Your task to perform on an android device: Go to battery settings Image 0: 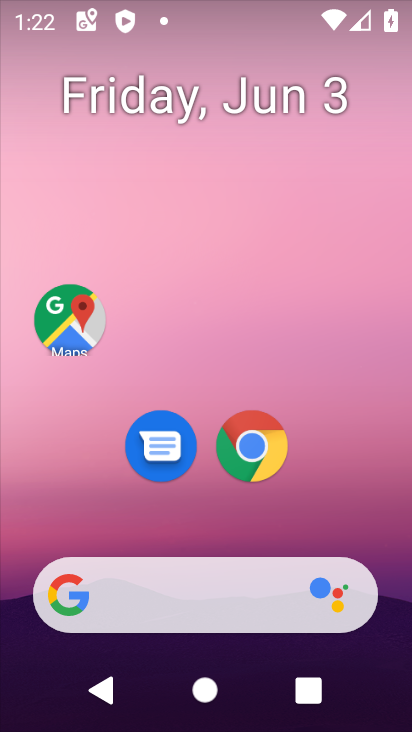
Step 0: drag from (198, 458) to (409, 40)
Your task to perform on an android device: Go to battery settings Image 1: 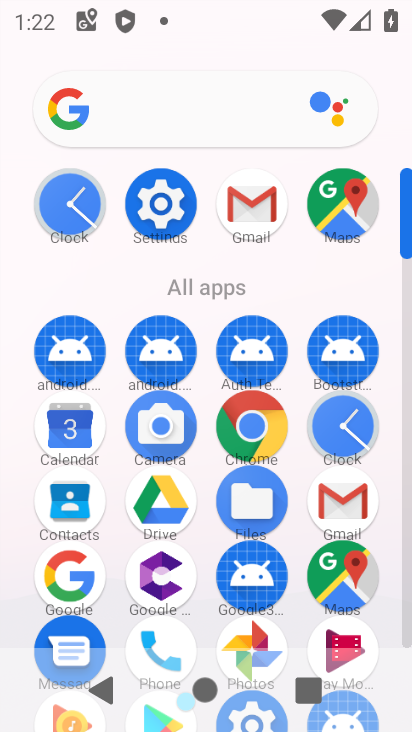
Step 1: click (189, 180)
Your task to perform on an android device: Go to battery settings Image 2: 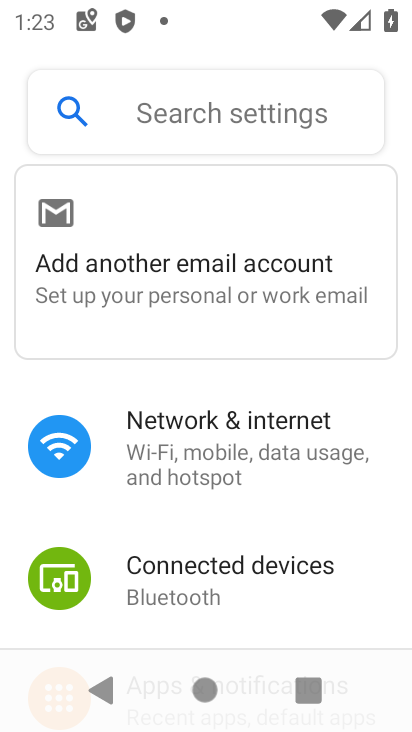
Step 2: drag from (188, 590) to (148, 281)
Your task to perform on an android device: Go to battery settings Image 3: 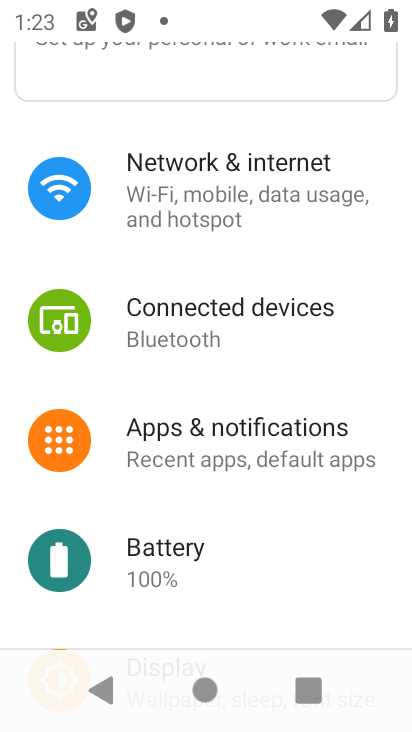
Step 3: click (197, 553)
Your task to perform on an android device: Go to battery settings Image 4: 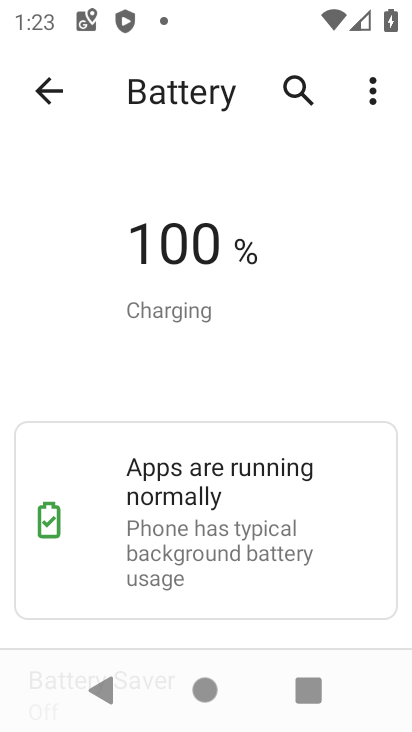
Step 4: task complete